Your task to perform on an android device: Open the phone app and click the voicemail tab. Image 0: 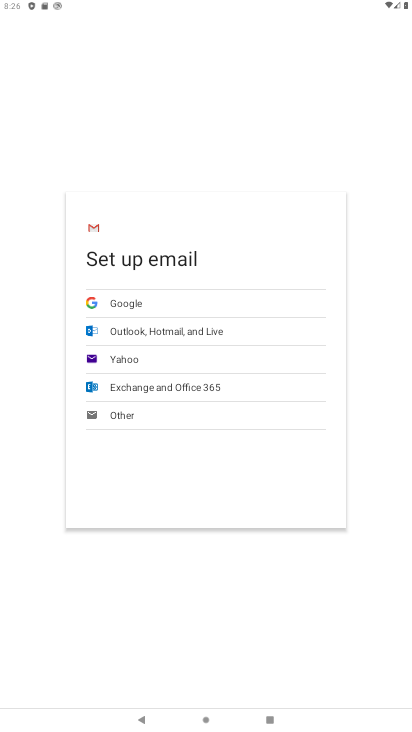
Step 0: press home button
Your task to perform on an android device: Open the phone app and click the voicemail tab. Image 1: 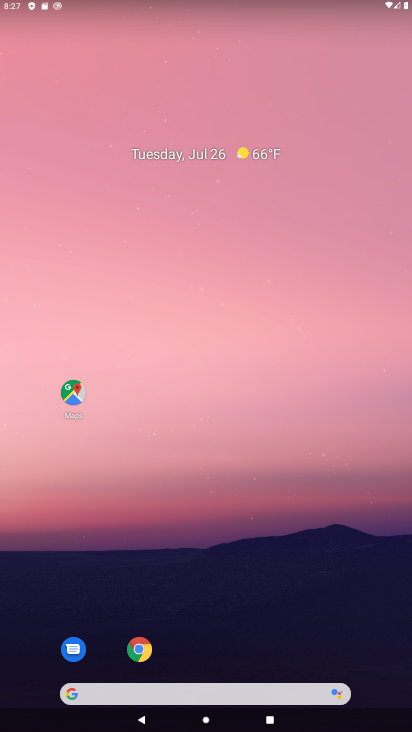
Step 1: drag from (172, 591) to (171, 22)
Your task to perform on an android device: Open the phone app and click the voicemail tab. Image 2: 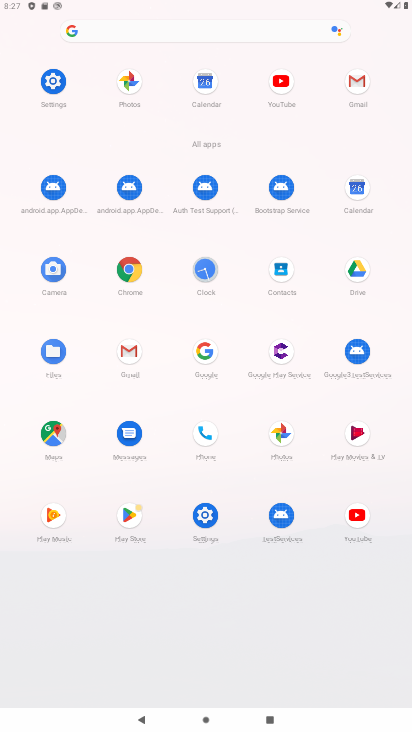
Step 2: click (196, 424)
Your task to perform on an android device: Open the phone app and click the voicemail tab. Image 3: 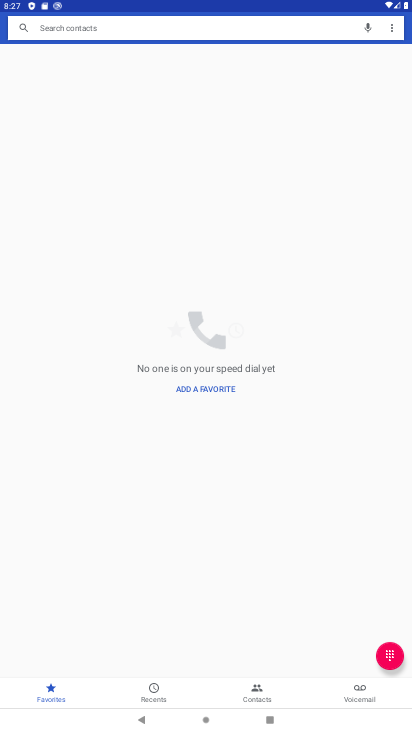
Step 3: click (371, 683)
Your task to perform on an android device: Open the phone app and click the voicemail tab. Image 4: 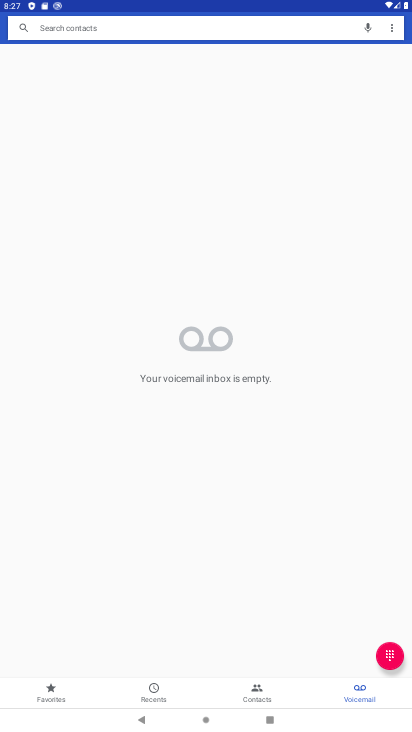
Step 4: task complete